Your task to perform on an android device: delete a single message in the gmail app Image 0: 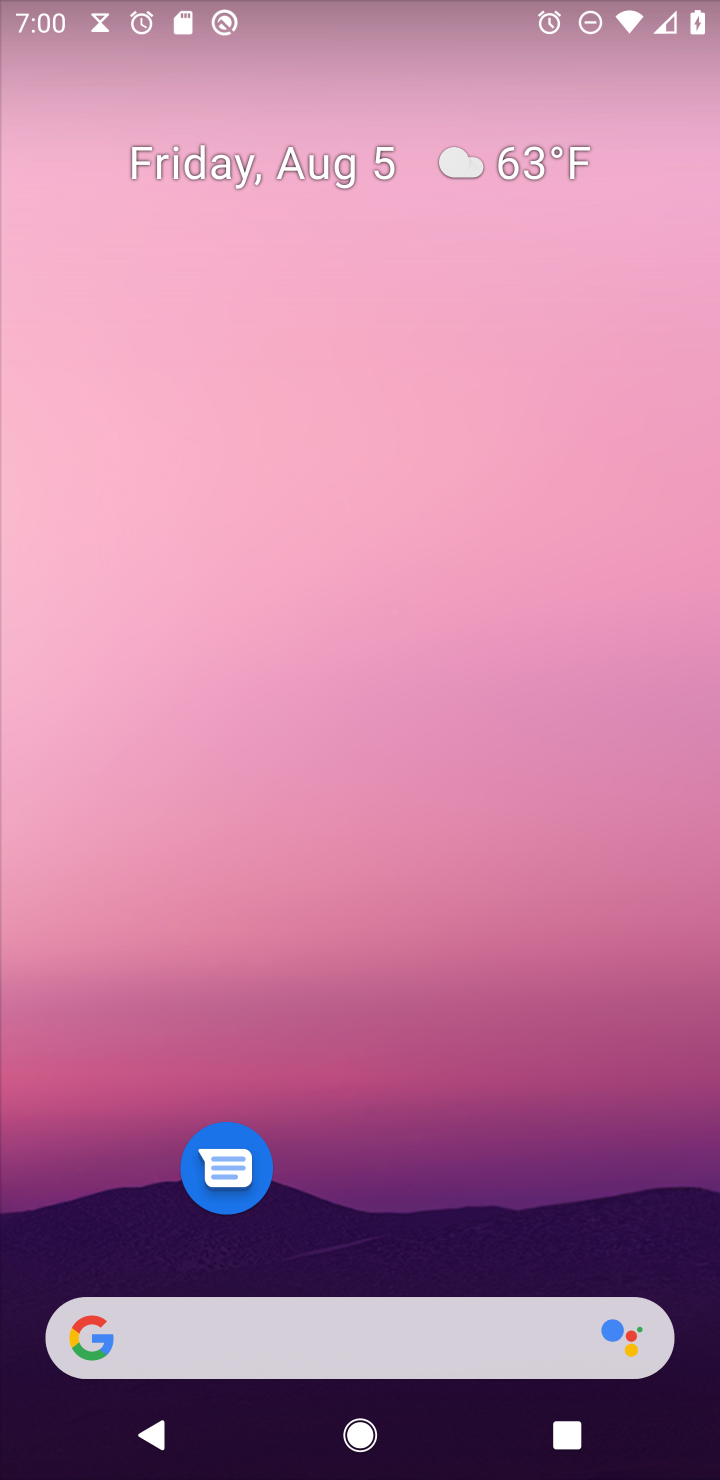
Step 0: press home button
Your task to perform on an android device: delete a single message in the gmail app Image 1: 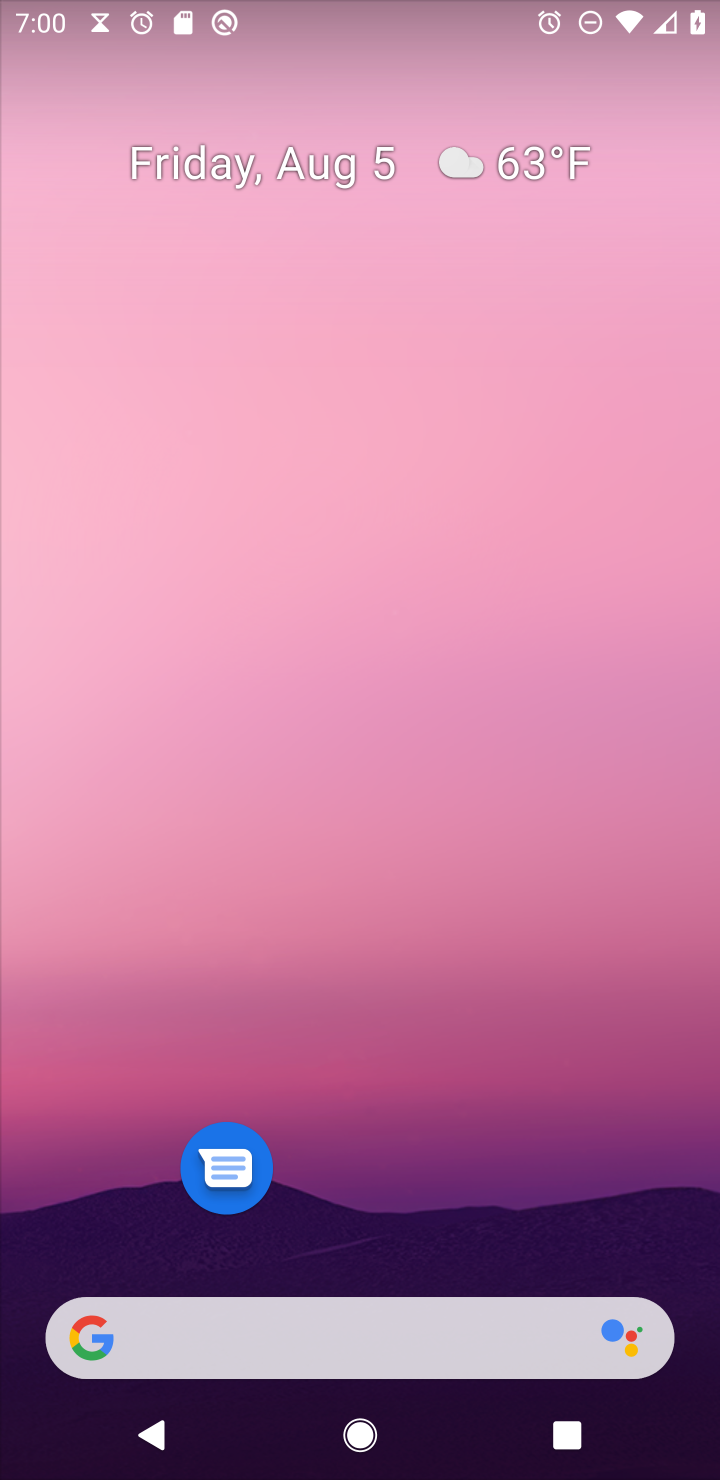
Step 1: drag from (453, 886) to (510, 290)
Your task to perform on an android device: delete a single message in the gmail app Image 2: 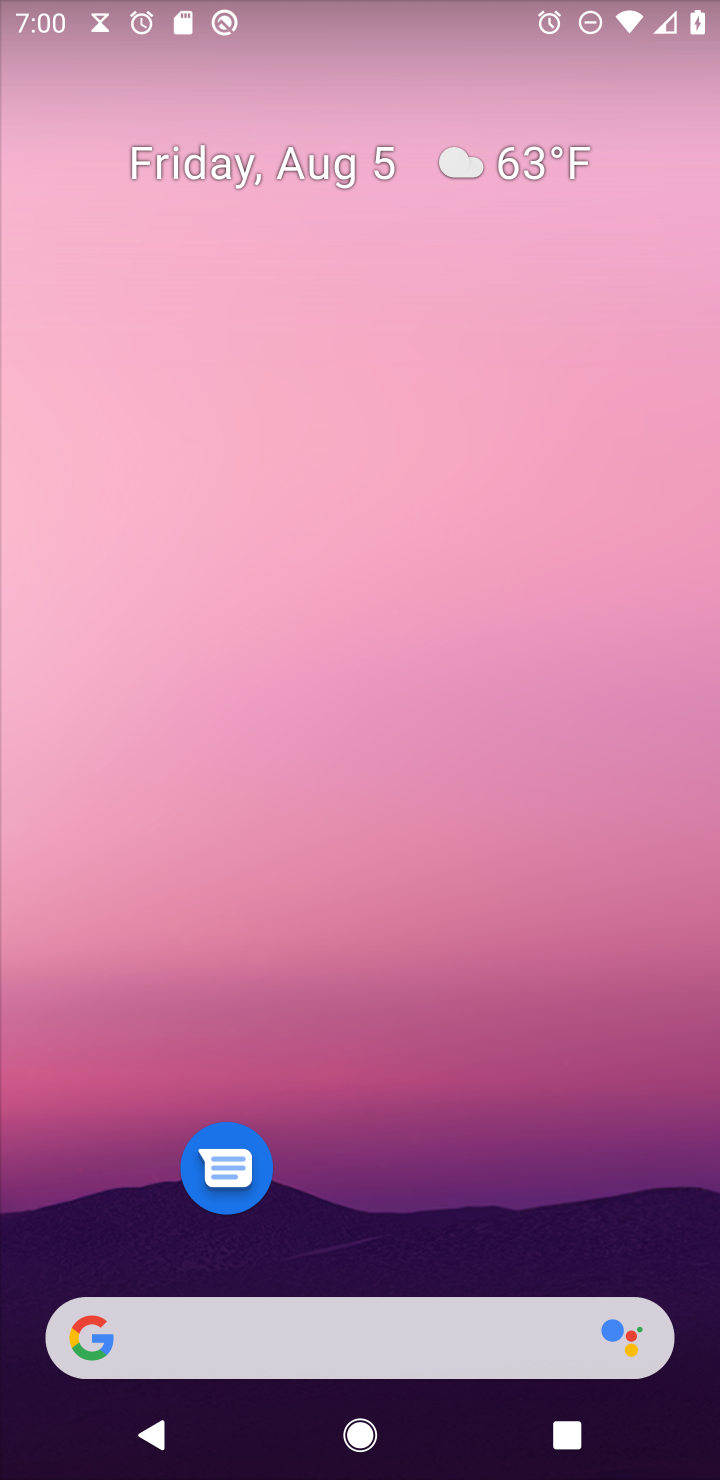
Step 2: drag from (441, 1098) to (535, 5)
Your task to perform on an android device: delete a single message in the gmail app Image 3: 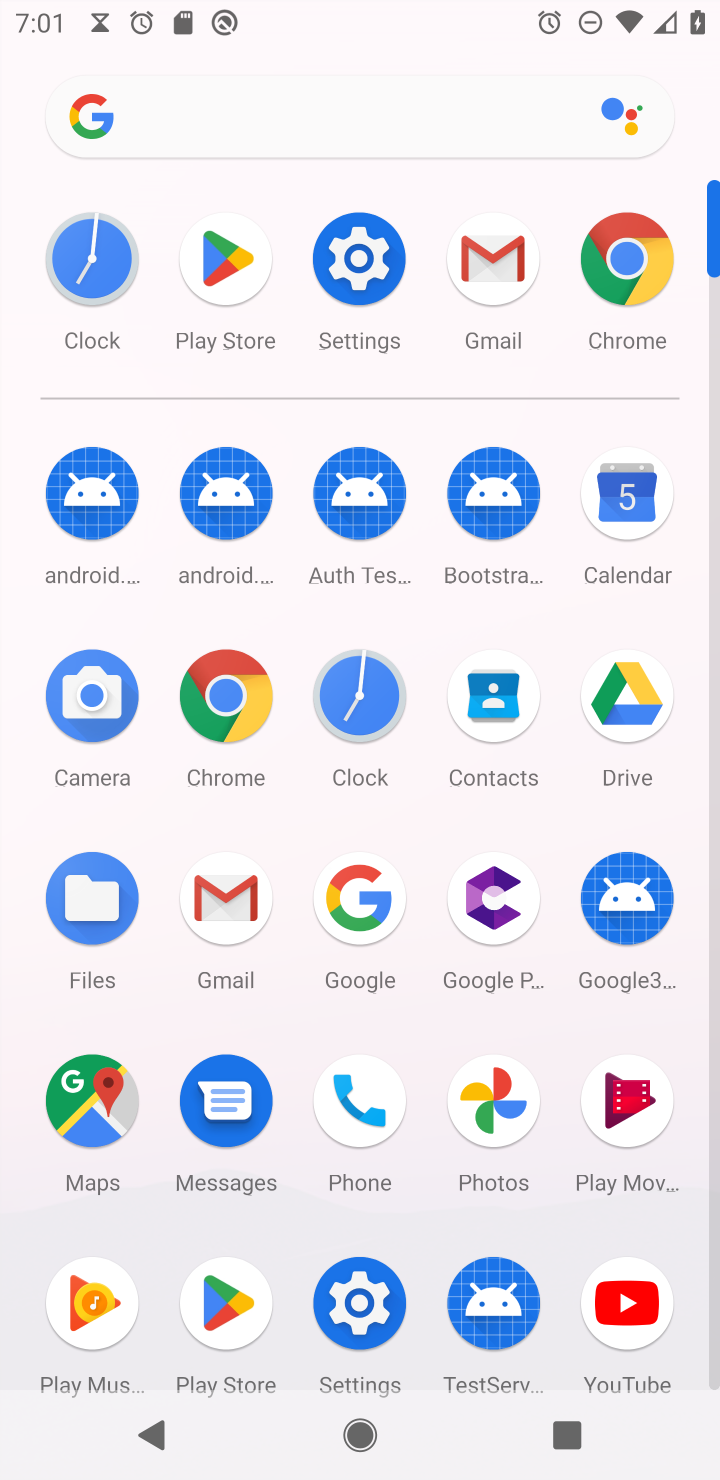
Step 3: click (484, 254)
Your task to perform on an android device: delete a single message in the gmail app Image 4: 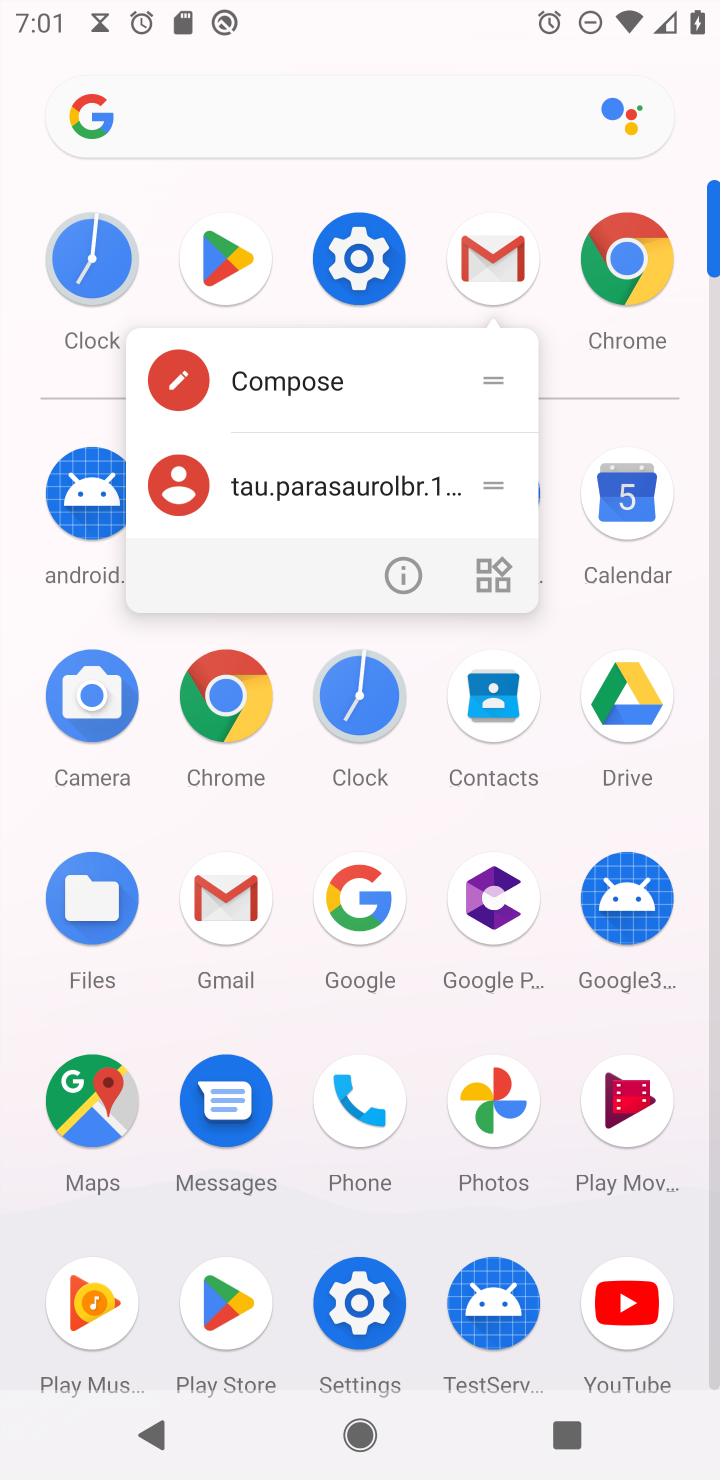
Step 4: click (484, 254)
Your task to perform on an android device: delete a single message in the gmail app Image 5: 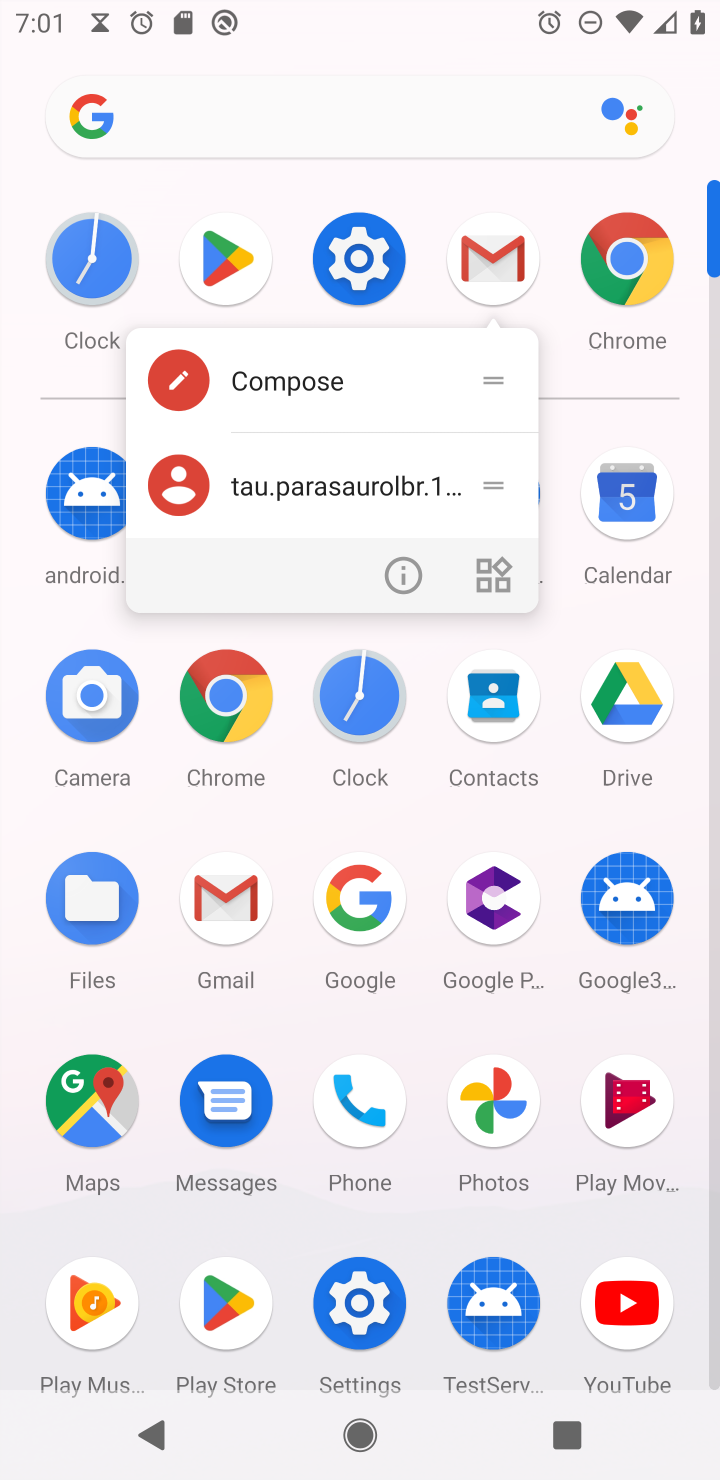
Step 5: click (484, 254)
Your task to perform on an android device: delete a single message in the gmail app Image 6: 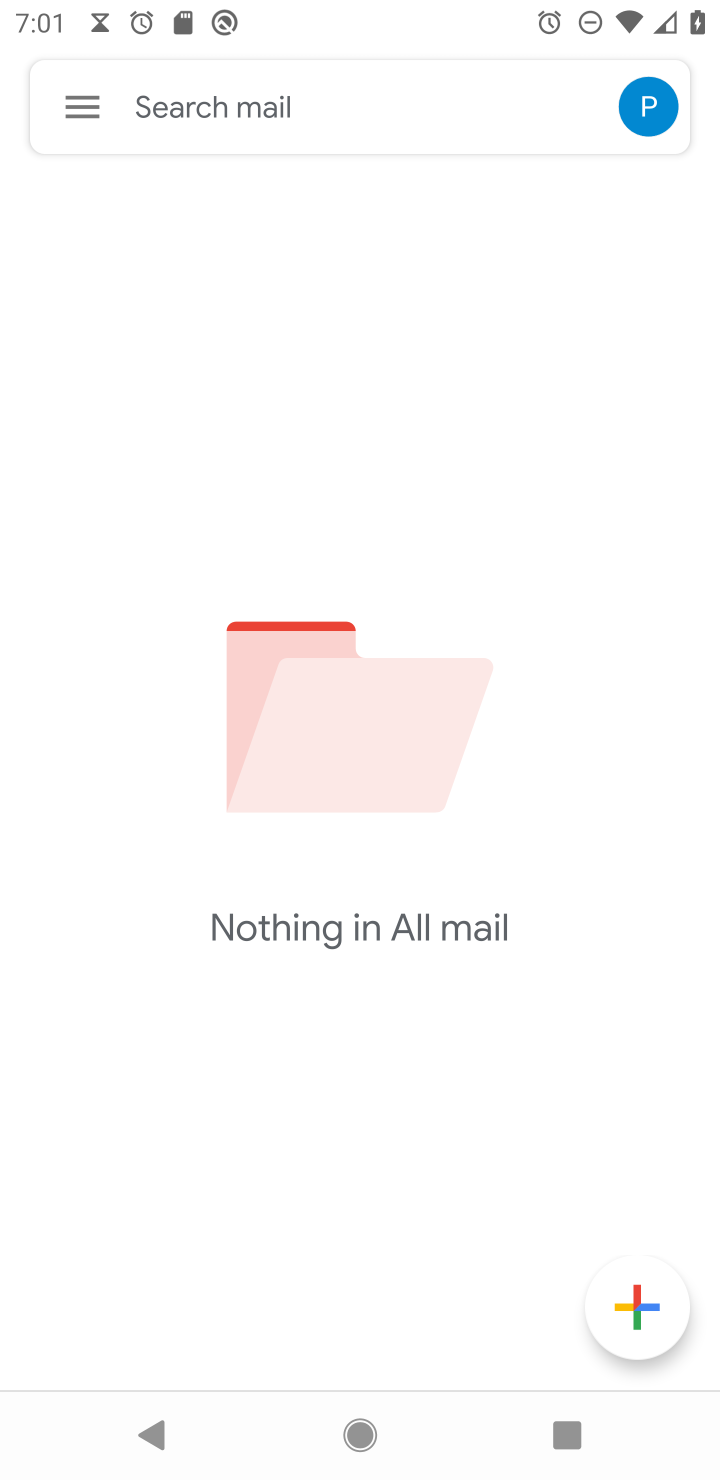
Step 6: click (88, 107)
Your task to perform on an android device: delete a single message in the gmail app Image 7: 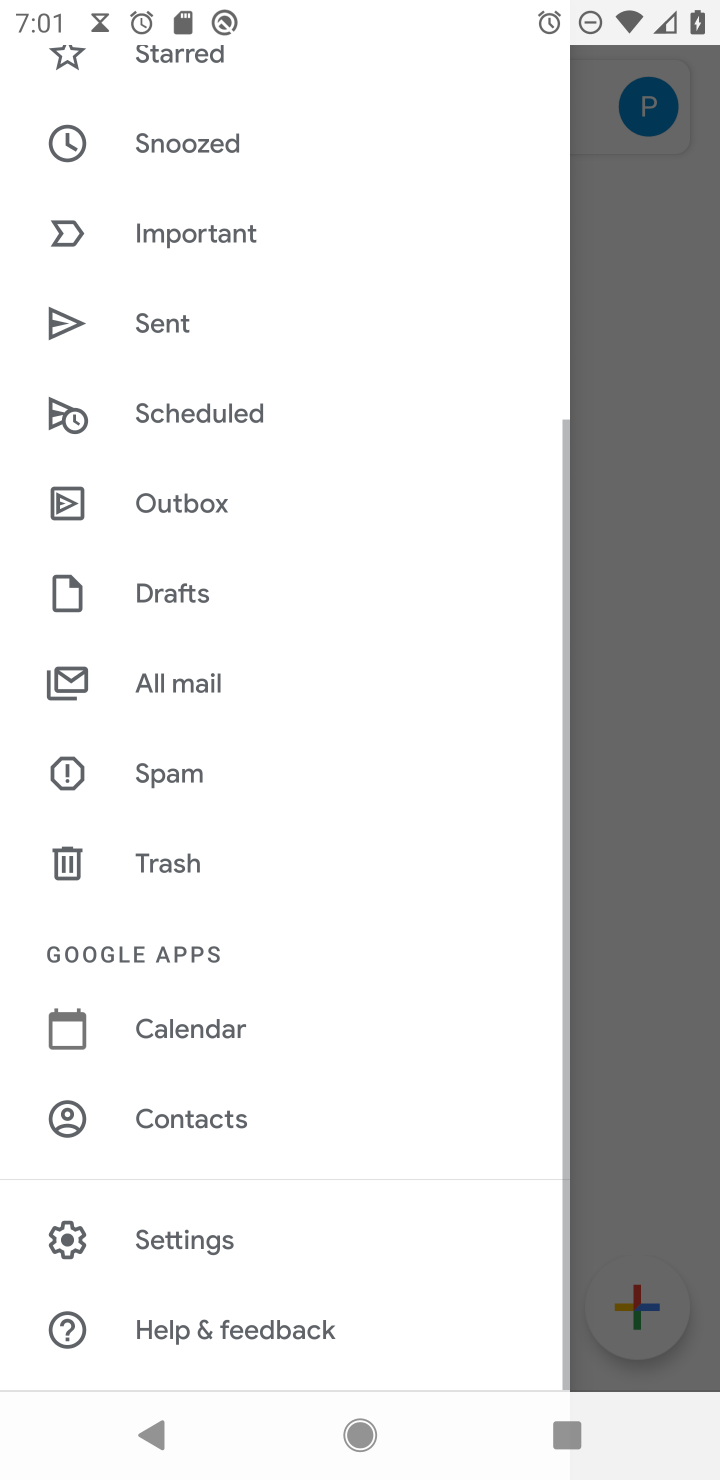
Step 7: click (195, 686)
Your task to perform on an android device: delete a single message in the gmail app Image 8: 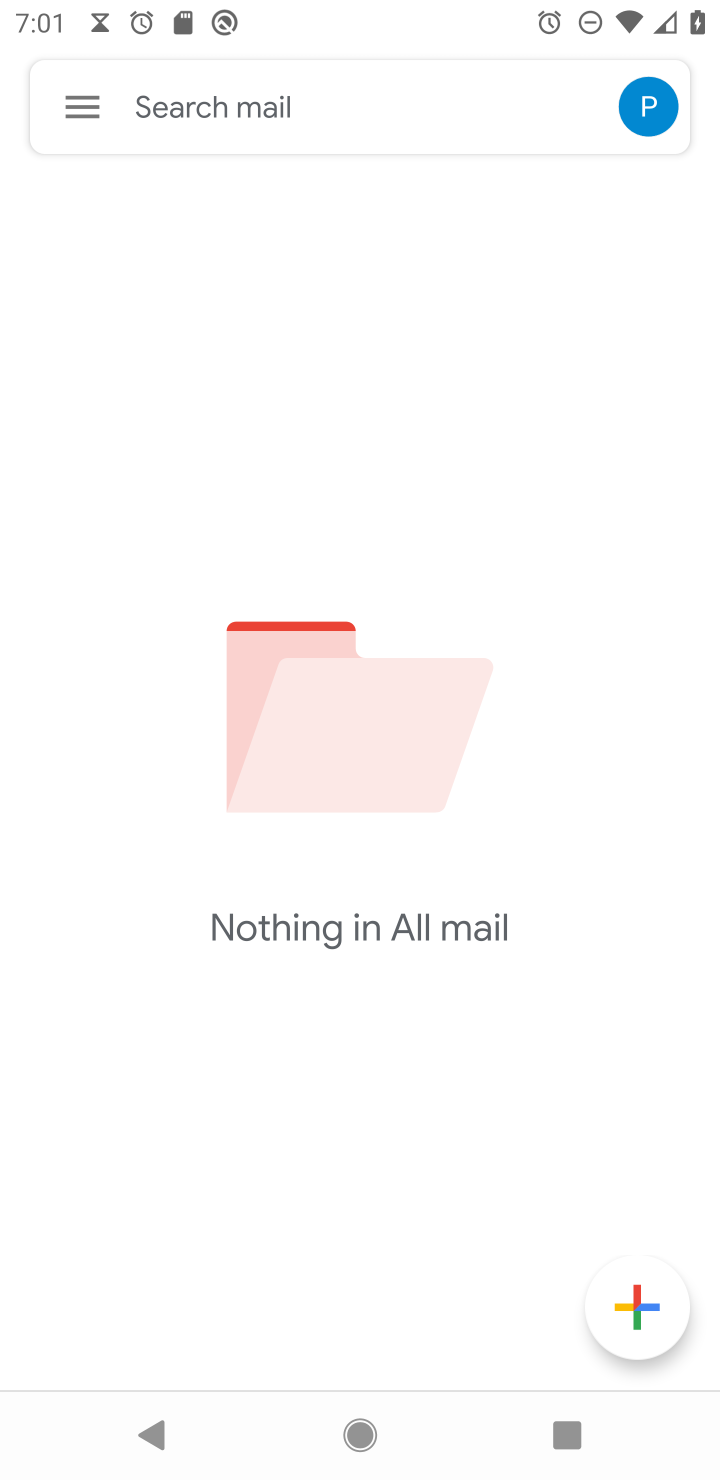
Step 8: task complete